Your task to perform on an android device: Open network settings Image 0: 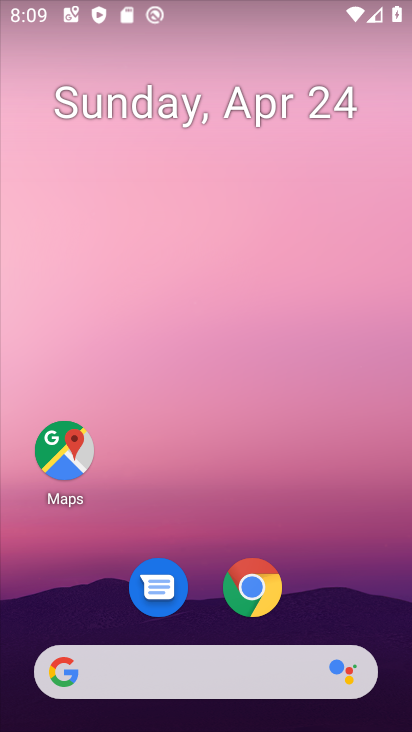
Step 0: drag from (339, 513) to (322, 58)
Your task to perform on an android device: Open network settings Image 1: 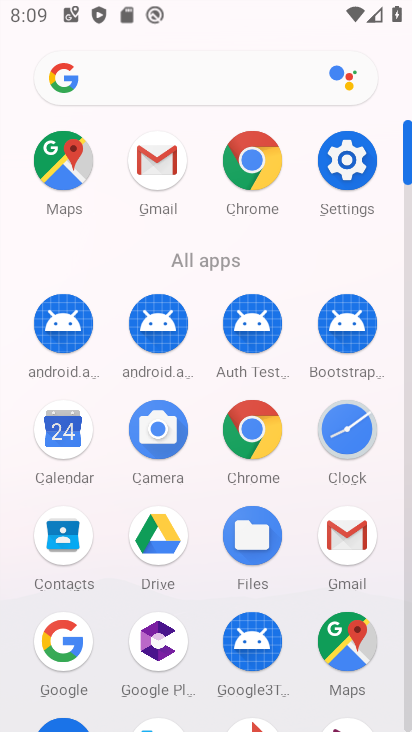
Step 1: click (342, 131)
Your task to perform on an android device: Open network settings Image 2: 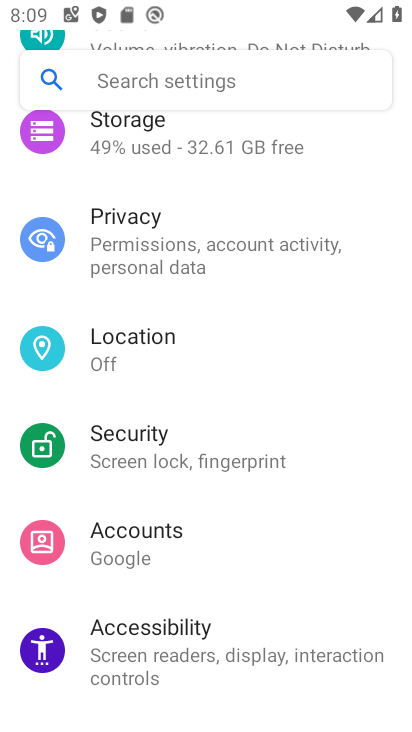
Step 2: drag from (219, 153) to (190, 594)
Your task to perform on an android device: Open network settings Image 3: 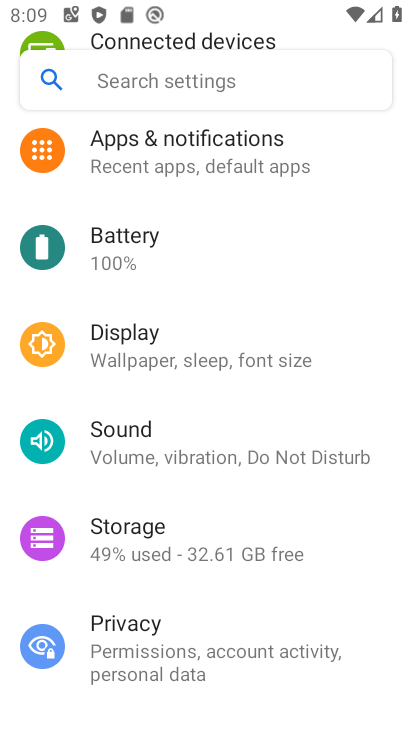
Step 3: drag from (207, 414) to (221, 682)
Your task to perform on an android device: Open network settings Image 4: 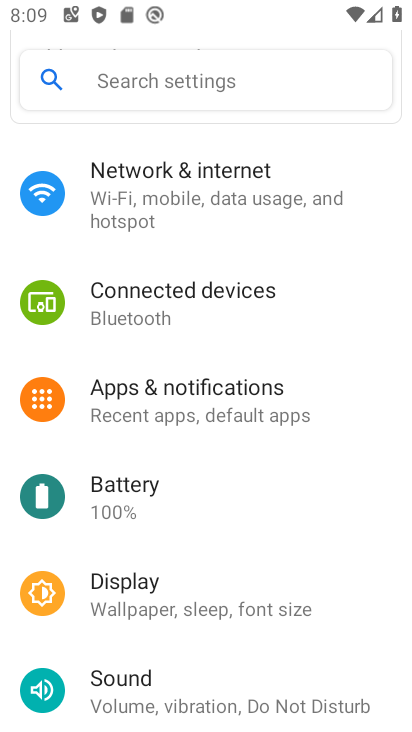
Step 4: click (175, 216)
Your task to perform on an android device: Open network settings Image 5: 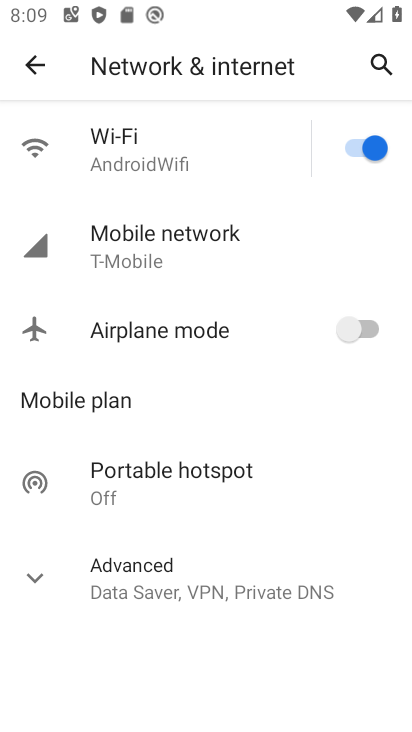
Step 5: task complete